Your task to perform on an android device: snooze an email in the gmail app Image 0: 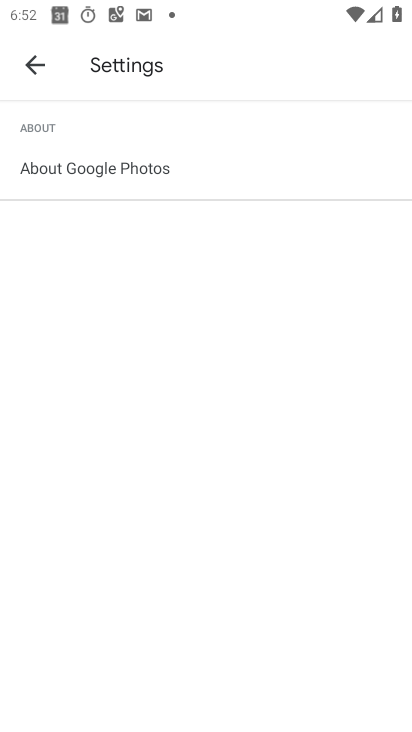
Step 0: press home button
Your task to perform on an android device: snooze an email in the gmail app Image 1: 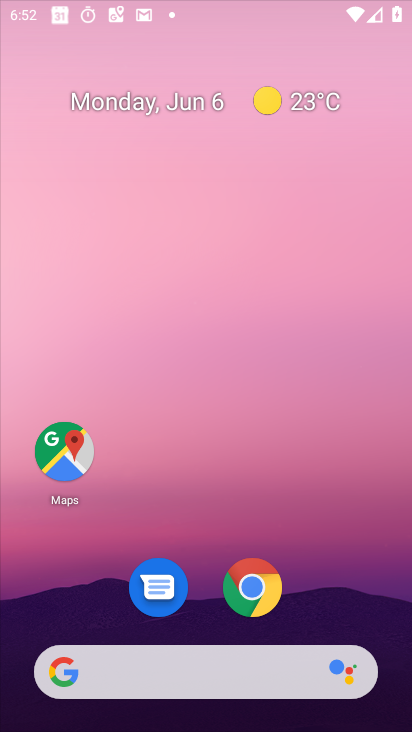
Step 1: drag from (391, 670) to (248, 105)
Your task to perform on an android device: snooze an email in the gmail app Image 2: 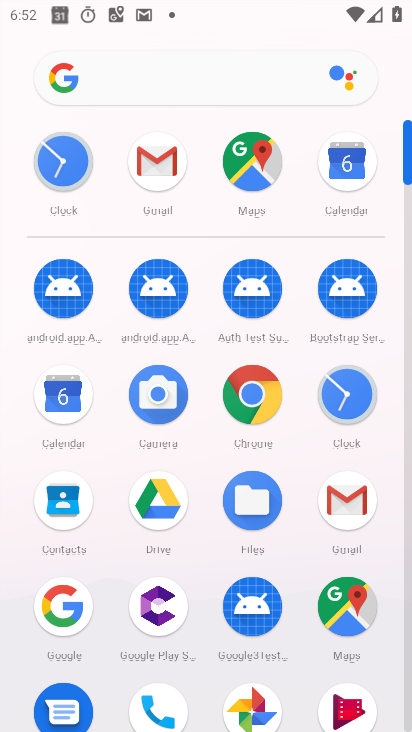
Step 2: click (341, 502)
Your task to perform on an android device: snooze an email in the gmail app Image 3: 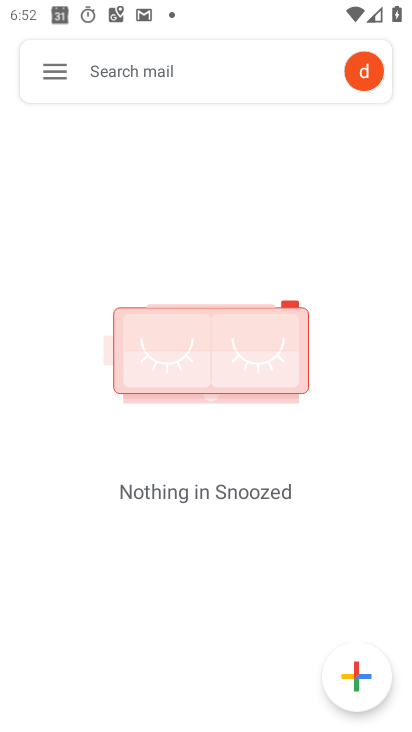
Step 3: click (48, 66)
Your task to perform on an android device: snooze an email in the gmail app Image 4: 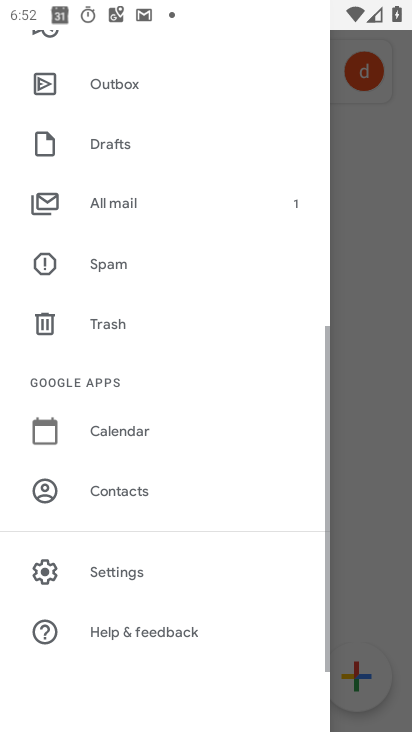
Step 4: drag from (66, 82) to (79, 617)
Your task to perform on an android device: snooze an email in the gmail app Image 5: 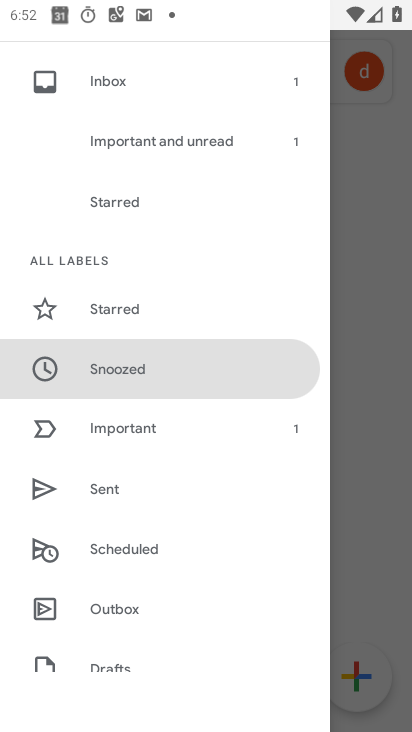
Step 5: click (130, 89)
Your task to perform on an android device: snooze an email in the gmail app Image 6: 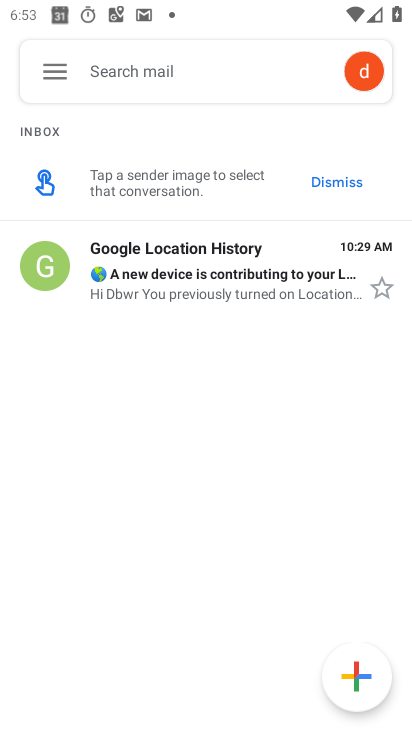
Step 6: click (243, 272)
Your task to perform on an android device: snooze an email in the gmail app Image 7: 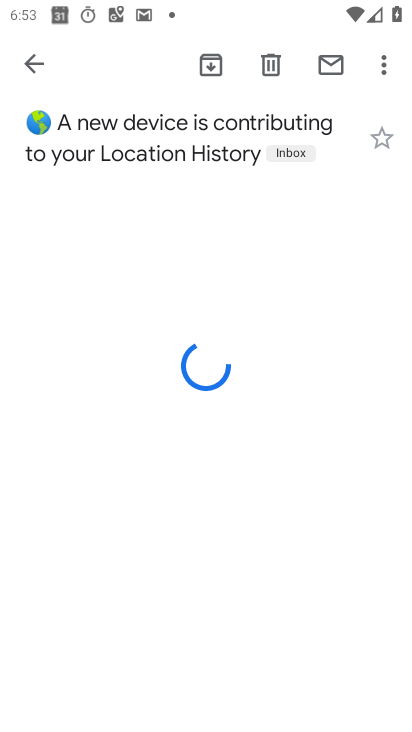
Step 7: click (383, 62)
Your task to perform on an android device: snooze an email in the gmail app Image 8: 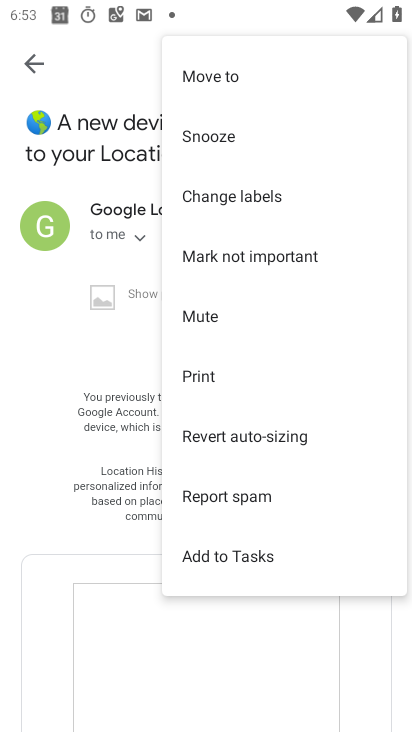
Step 8: click (258, 143)
Your task to perform on an android device: snooze an email in the gmail app Image 9: 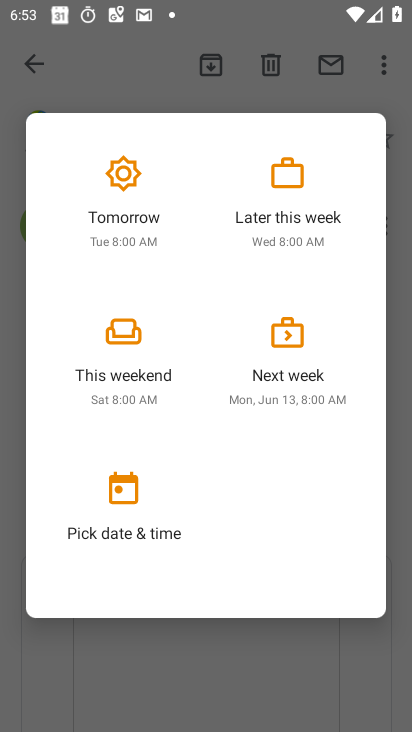
Step 9: click (274, 216)
Your task to perform on an android device: snooze an email in the gmail app Image 10: 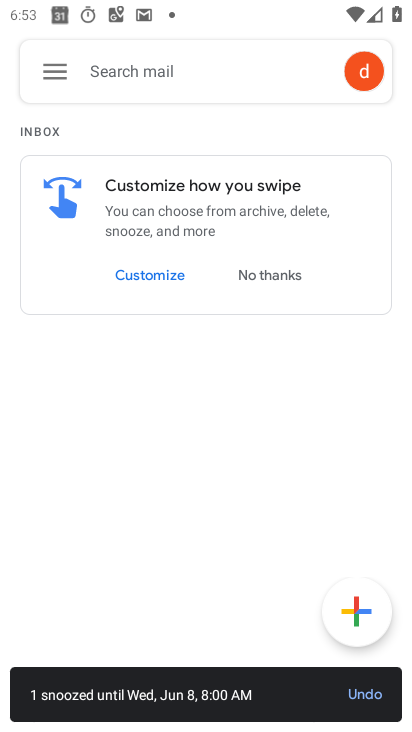
Step 10: task complete